Your task to perform on an android device: turn on wifi Image 0: 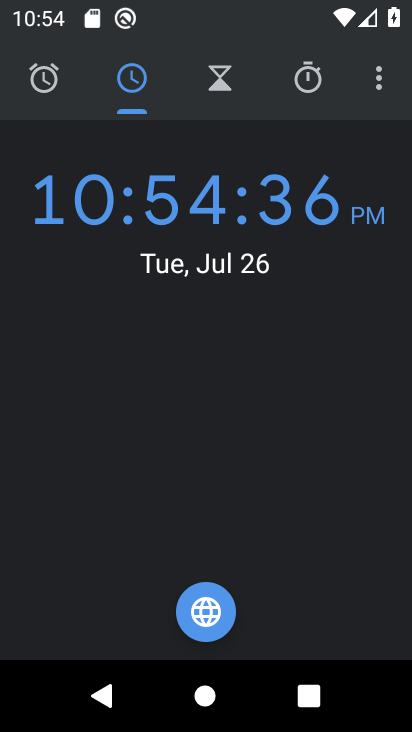
Step 0: press back button
Your task to perform on an android device: turn on wifi Image 1: 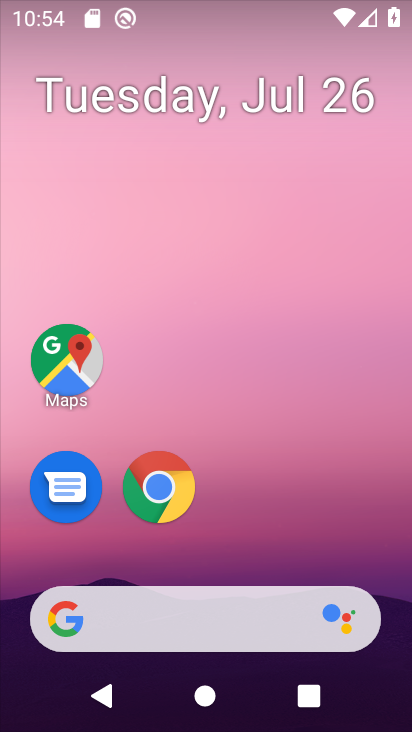
Step 1: task complete